Your task to perform on an android device: turn pop-ups on in chrome Image 0: 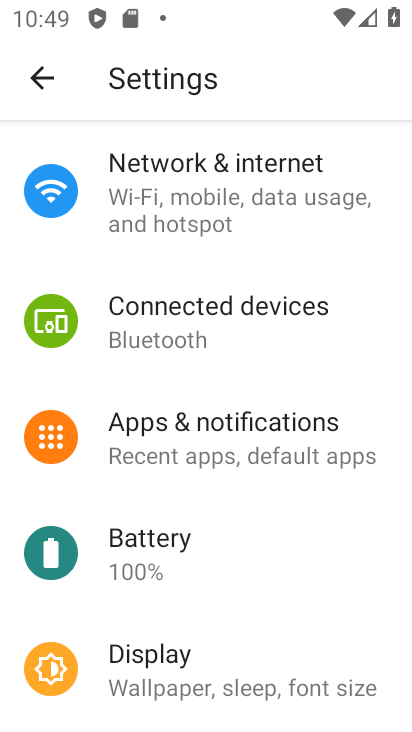
Step 0: press home button
Your task to perform on an android device: turn pop-ups on in chrome Image 1: 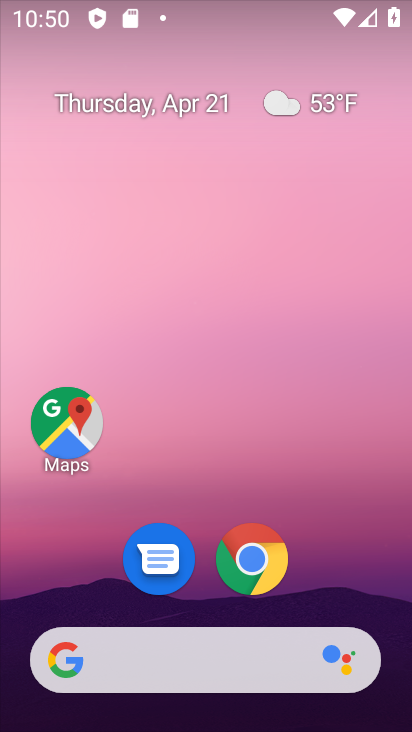
Step 1: drag from (249, 678) to (292, 243)
Your task to perform on an android device: turn pop-ups on in chrome Image 2: 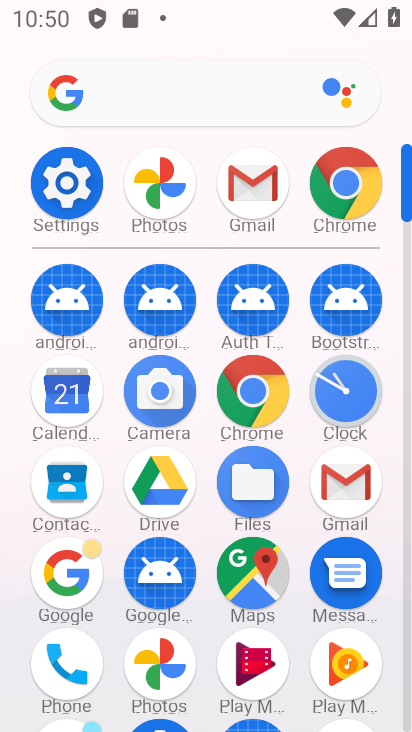
Step 2: click (74, 183)
Your task to perform on an android device: turn pop-ups on in chrome Image 3: 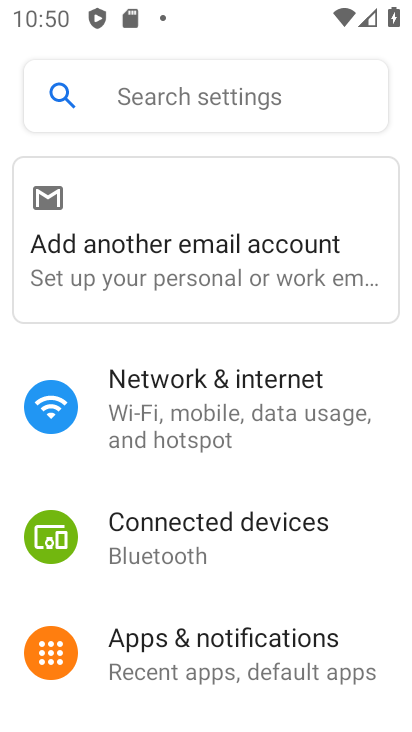
Step 3: press home button
Your task to perform on an android device: turn pop-ups on in chrome Image 4: 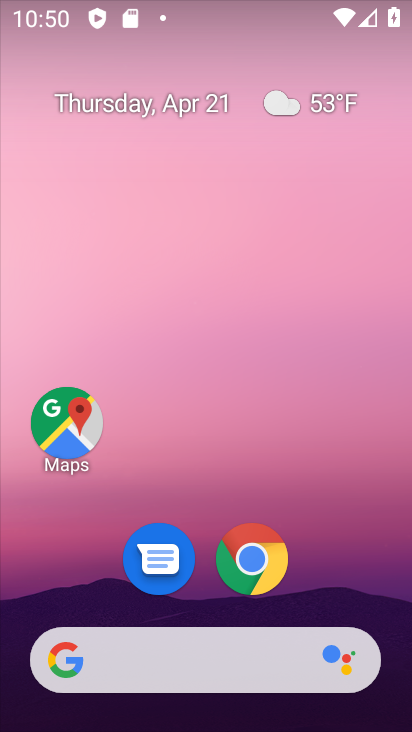
Step 4: drag from (212, 682) to (209, 277)
Your task to perform on an android device: turn pop-ups on in chrome Image 5: 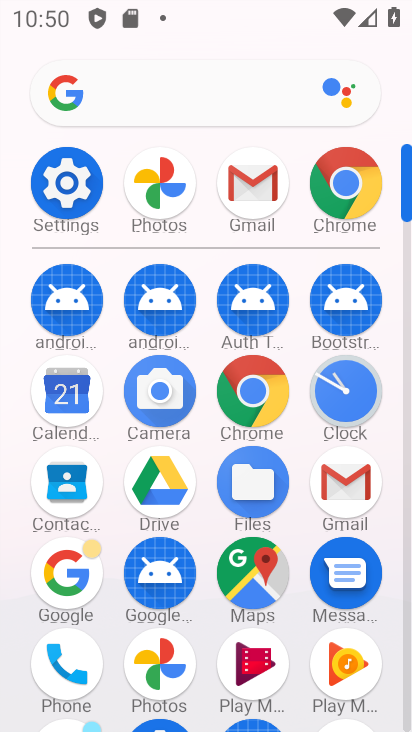
Step 5: click (339, 190)
Your task to perform on an android device: turn pop-ups on in chrome Image 6: 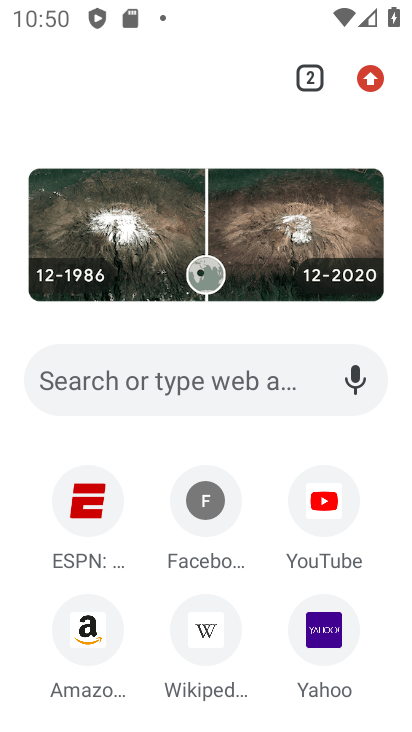
Step 6: click (365, 69)
Your task to perform on an android device: turn pop-ups on in chrome Image 7: 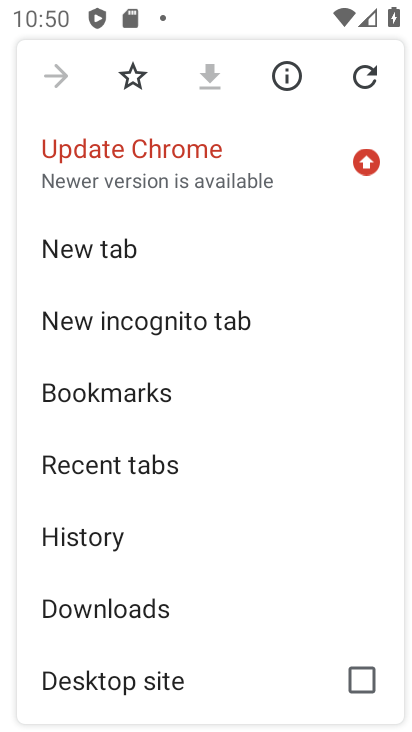
Step 7: drag from (166, 566) to (221, 339)
Your task to perform on an android device: turn pop-ups on in chrome Image 8: 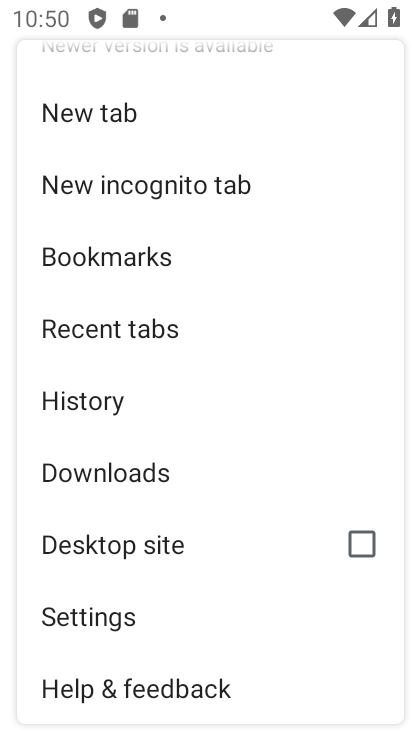
Step 8: click (100, 609)
Your task to perform on an android device: turn pop-ups on in chrome Image 9: 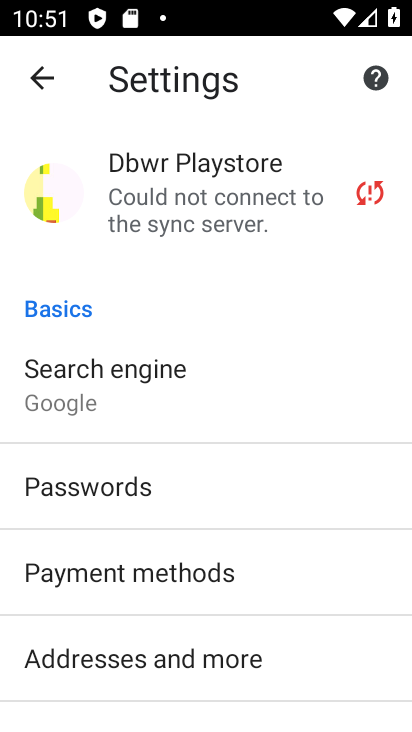
Step 9: drag from (111, 592) to (163, 334)
Your task to perform on an android device: turn pop-ups on in chrome Image 10: 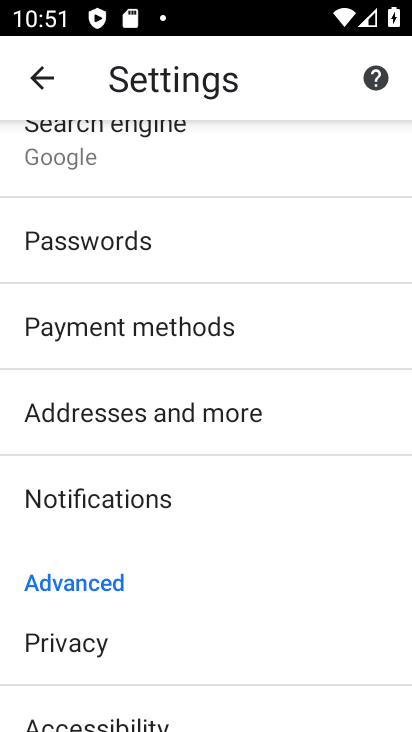
Step 10: drag from (168, 562) to (205, 349)
Your task to perform on an android device: turn pop-ups on in chrome Image 11: 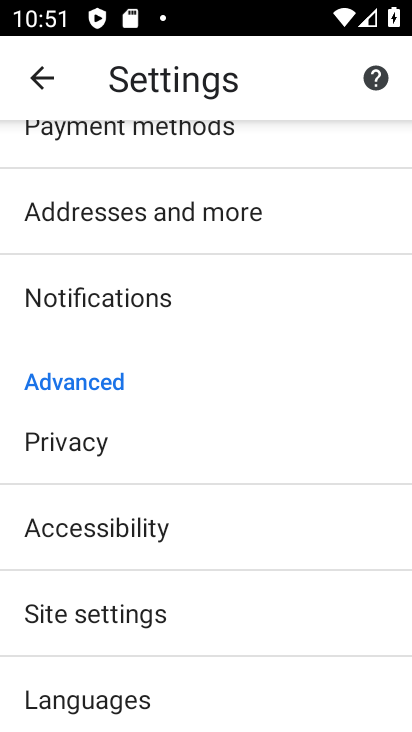
Step 11: click (129, 604)
Your task to perform on an android device: turn pop-ups on in chrome Image 12: 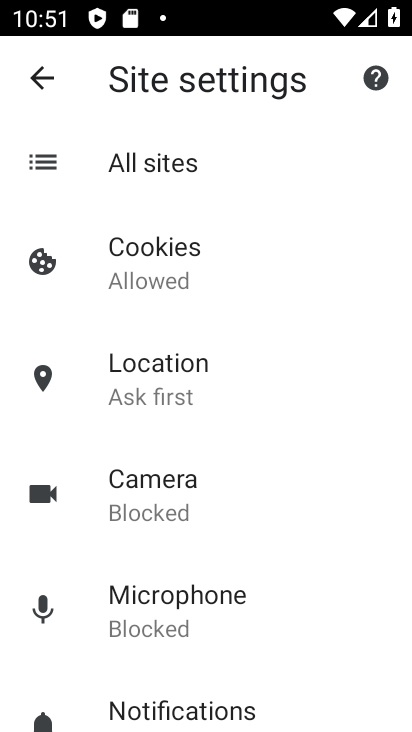
Step 12: drag from (173, 637) to (201, 300)
Your task to perform on an android device: turn pop-ups on in chrome Image 13: 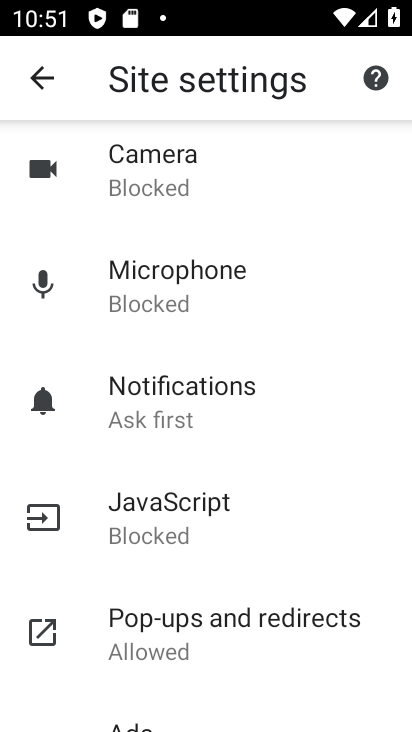
Step 13: click (165, 625)
Your task to perform on an android device: turn pop-ups on in chrome Image 14: 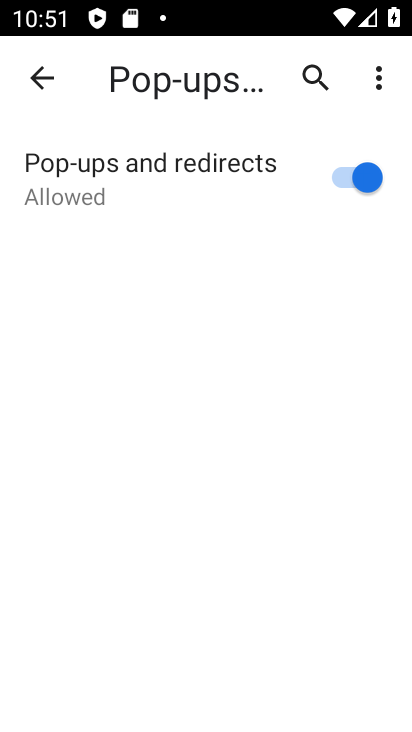
Step 14: click (317, 179)
Your task to perform on an android device: turn pop-ups on in chrome Image 15: 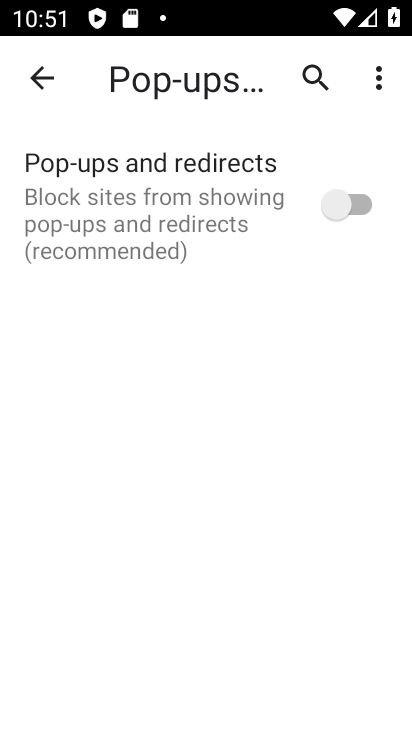
Step 15: click (317, 179)
Your task to perform on an android device: turn pop-ups on in chrome Image 16: 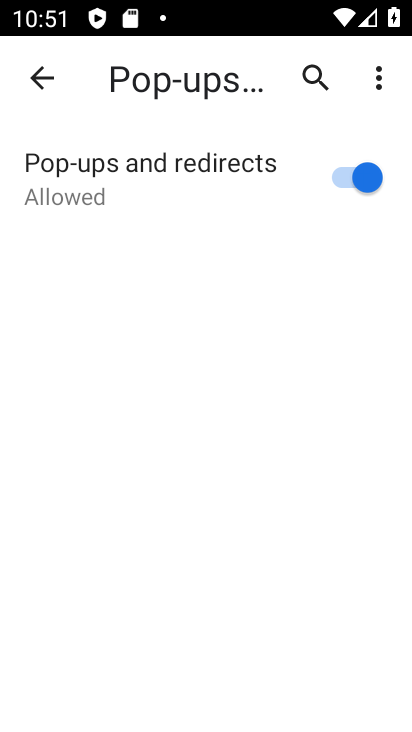
Step 16: task complete